Your task to perform on an android device: change alarm snooze length Image 0: 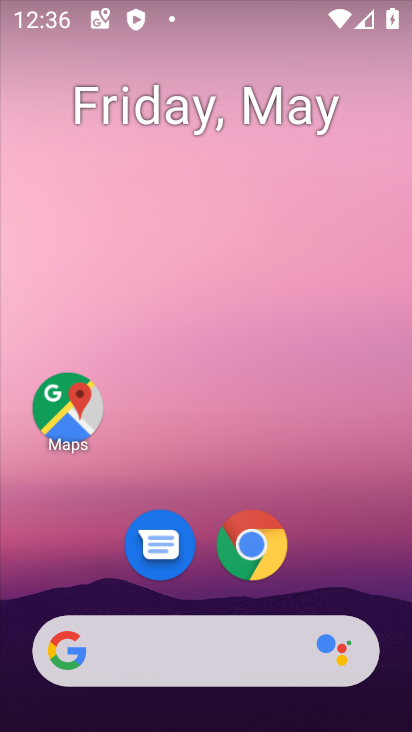
Step 0: drag from (351, 519) to (358, 135)
Your task to perform on an android device: change alarm snooze length Image 1: 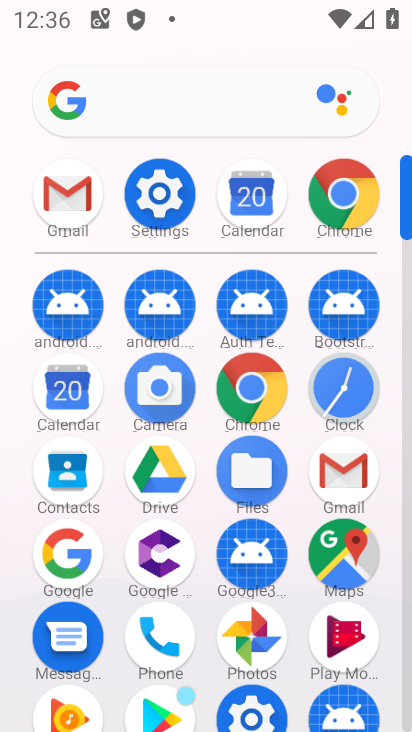
Step 1: click (332, 393)
Your task to perform on an android device: change alarm snooze length Image 2: 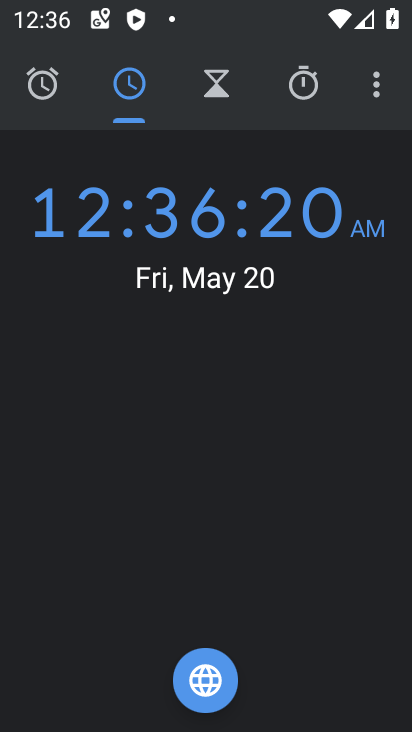
Step 2: click (379, 79)
Your task to perform on an android device: change alarm snooze length Image 3: 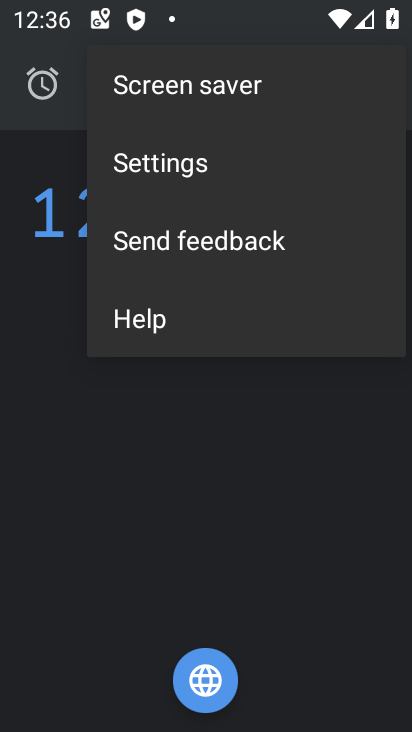
Step 3: click (250, 171)
Your task to perform on an android device: change alarm snooze length Image 4: 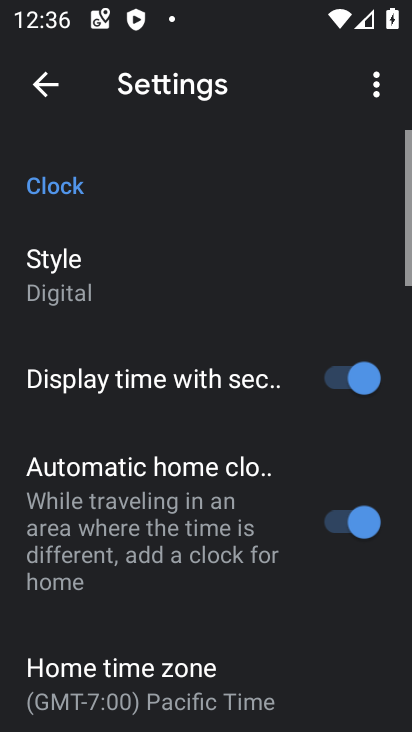
Step 4: drag from (127, 439) to (282, 166)
Your task to perform on an android device: change alarm snooze length Image 5: 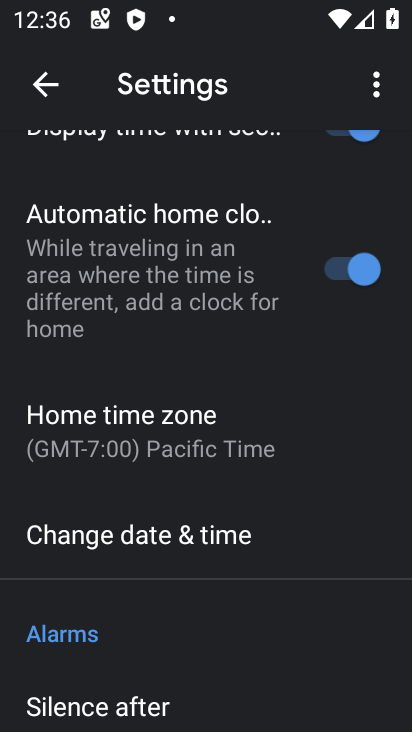
Step 5: drag from (339, 557) to (351, 270)
Your task to perform on an android device: change alarm snooze length Image 6: 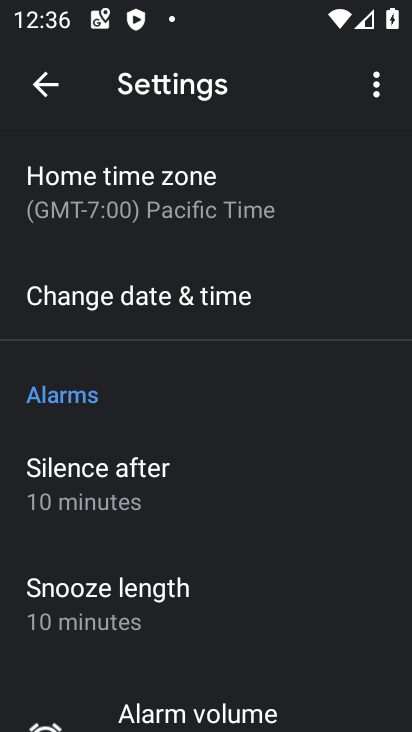
Step 6: drag from (194, 568) to (277, 190)
Your task to perform on an android device: change alarm snooze length Image 7: 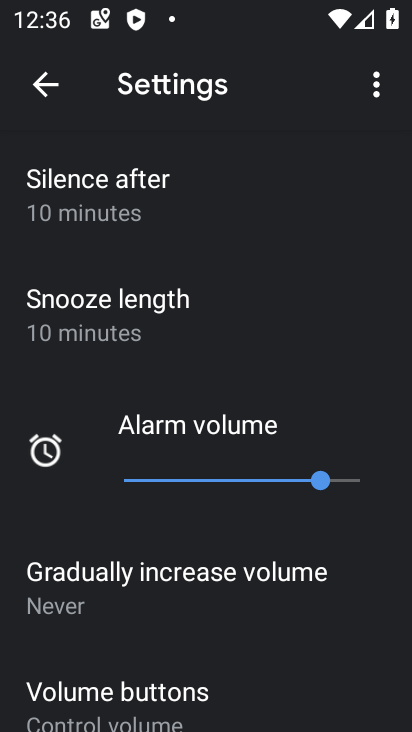
Step 7: click (188, 296)
Your task to perform on an android device: change alarm snooze length Image 8: 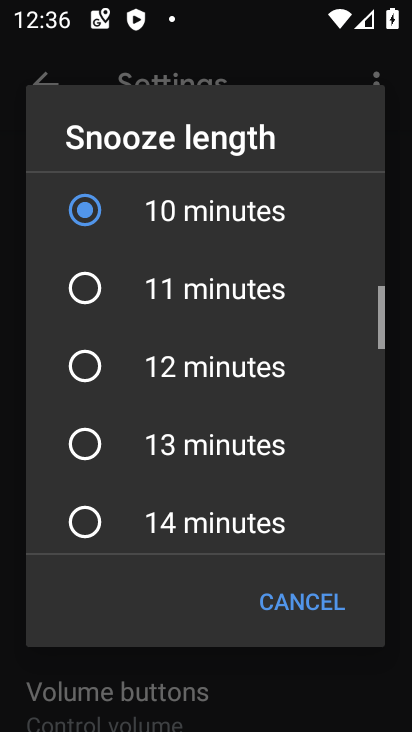
Step 8: click (101, 302)
Your task to perform on an android device: change alarm snooze length Image 9: 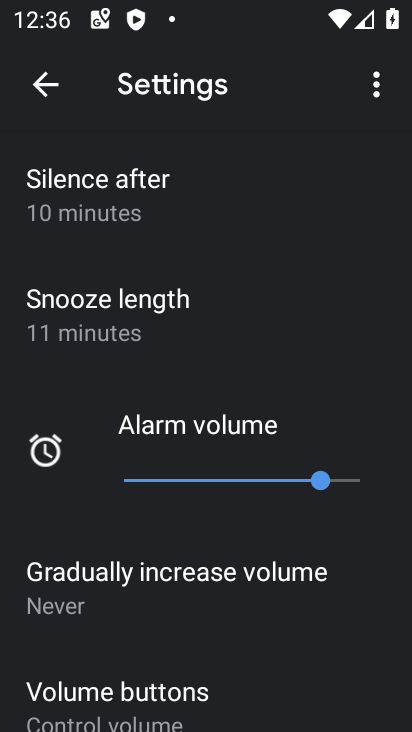
Step 9: task complete